Your task to perform on an android device: Open privacy settings Image 0: 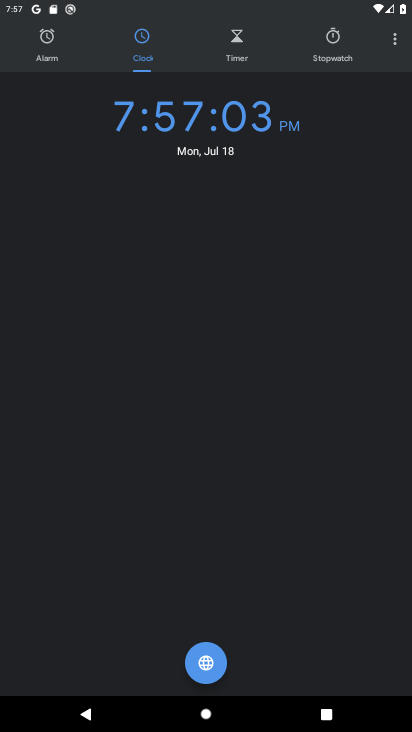
Step 0: press home button
Your task to perform on an android device: Open privacy settings Image 1: 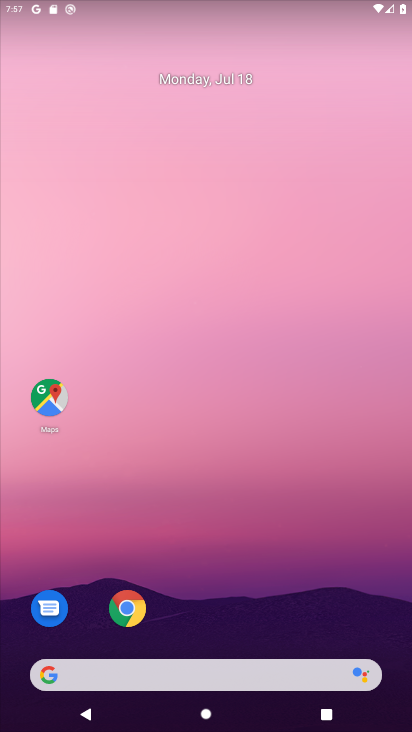
Step 1: drag from (216, 642) to (263, 43)
Your task to perform on an android device: Open privacy settings Image 2: 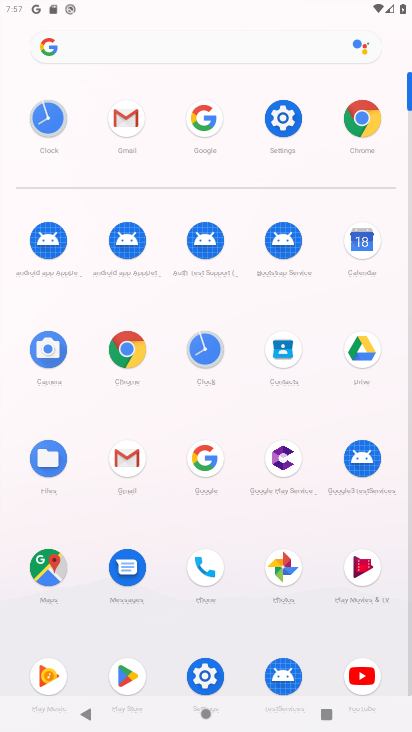
Step 2: click (277, 164)
Your task to perform on an android device: Open privacy settings Image 3: 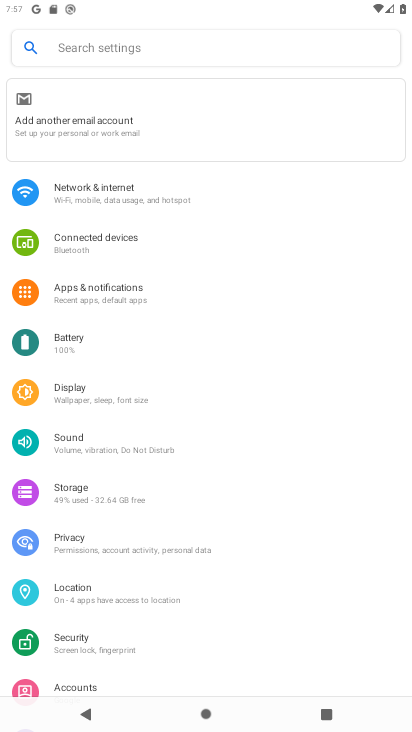
Step 3: click (61, 552)
Your task to perform on an android device: Open privacy settings Image 4: 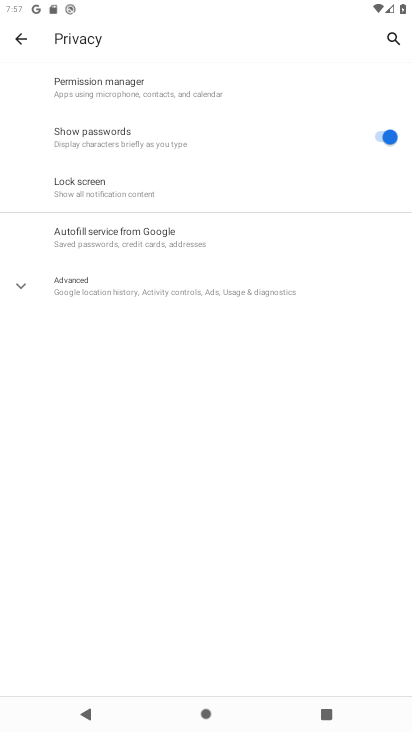
Step 4: click (98, 295)
Your task to perform on an android device: Open privacy settings Image 5: 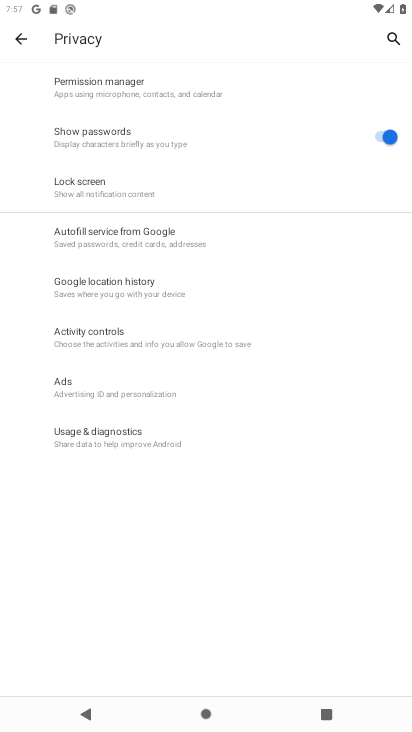
Step 5: task complete